Your task to perform on an android device: When is my next appointment? Image 0: 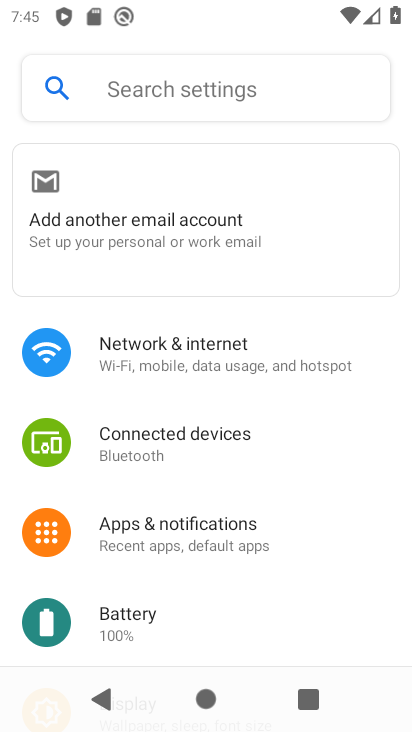
Step 0: press home button
Your task to perform on an android device: When is my next appointment? Image 1: 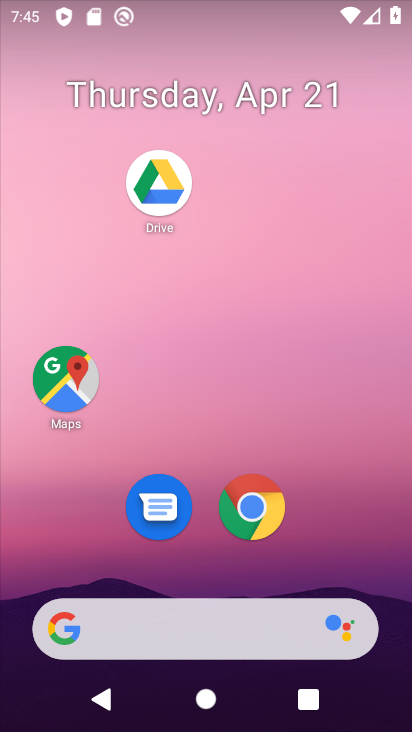
Step 1: drag from (356, 535) to (352, 110)
Your task to perform on an android device: When is my next appointment? Image 2: 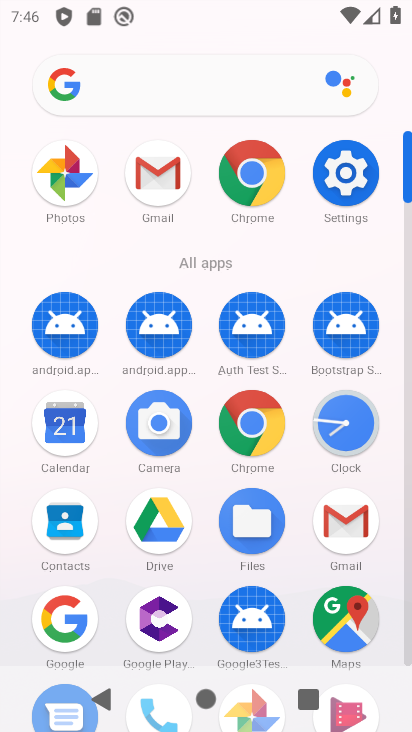
Step 2: click (53, 439)
Your task to perform on an android device: When is my next appointment? Image 3: 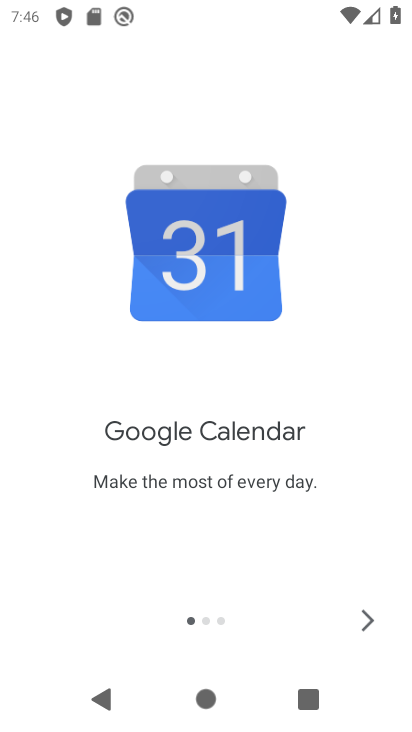
Step 3: click (369, 629)
Your task to perform on an android device: When is my next appointment? Image 4: 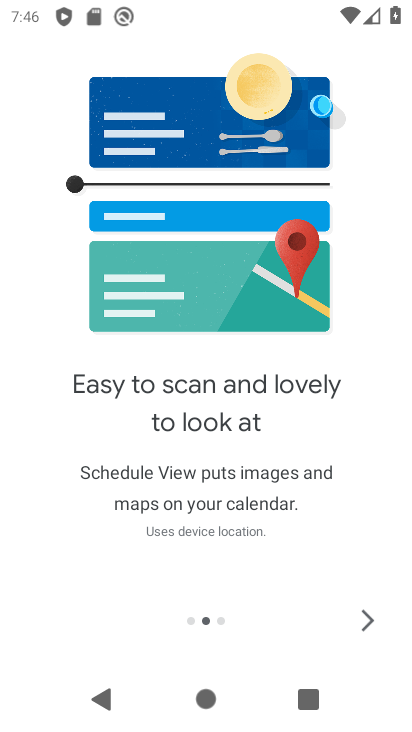
Step 4: click (370, 628)
Your task to perform on an android device: When is my next appointment? Image 5: 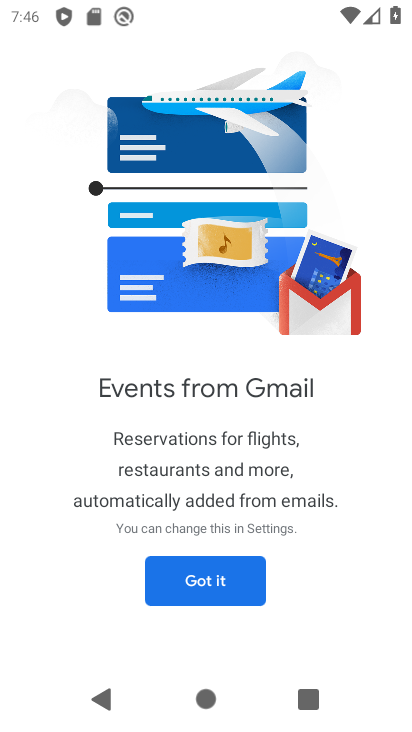
Step 5: click (241, 605)
Your task to perform on an android device: When is my next appointment? Image 6: 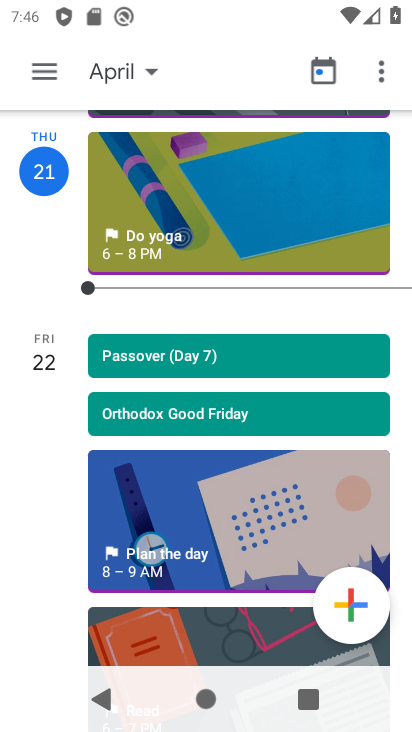
Step 6: drag from (240, 479) to (268, 216)
Your task to perform on an android device: When is my next appointment? Image 7: 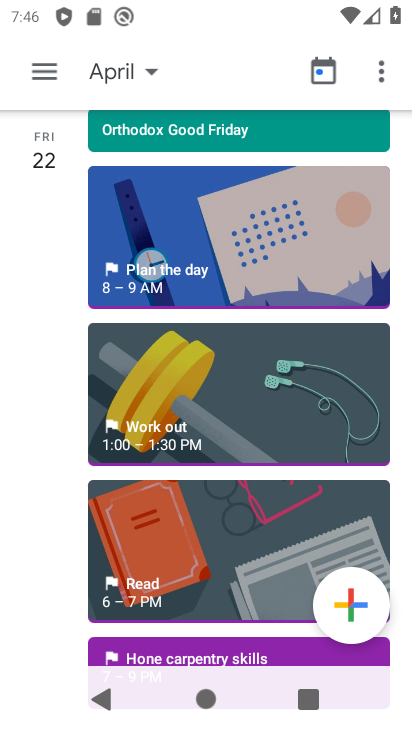
Step 7: drag from (271, 517) to (288, 189)
Your task to perform on an android device: When is my next appointment? Image 8: 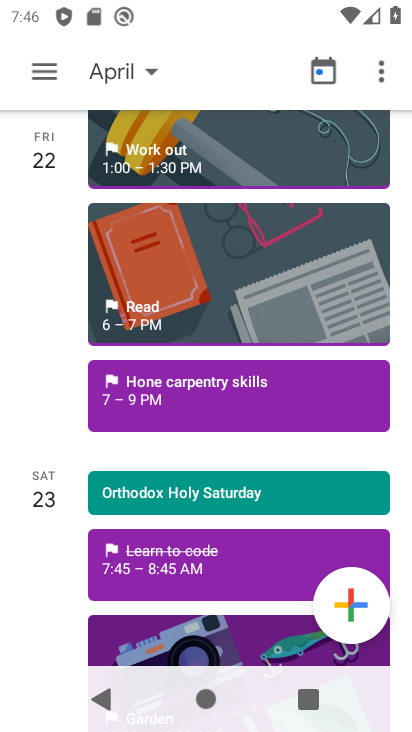
Step 8: drag from (256, 573) to (275, 280)
Your task to perform on an android device: When is my next appointment? Image 9: 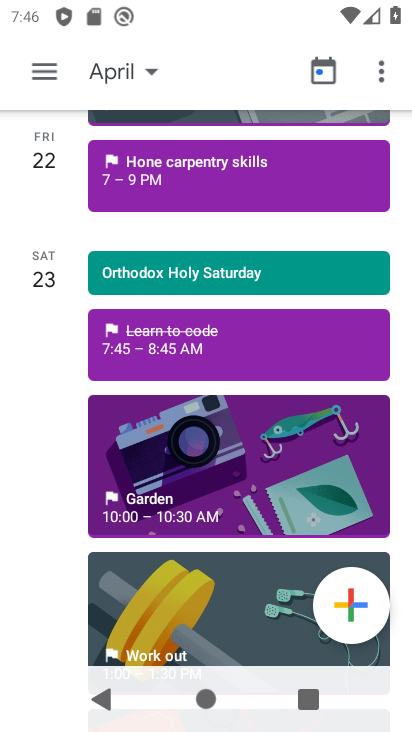
Step 9: drag from (245, 490) to (267, 205)
Your task to perform on an android device: When is my next appointment? Image 10: 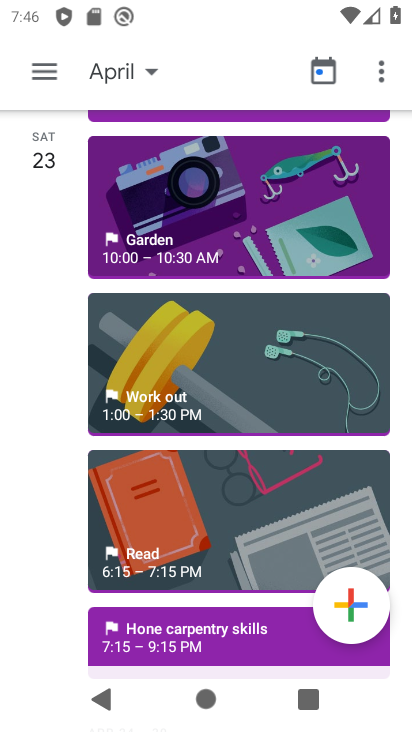
Step 10: drag from (259, 243) to (260, 535)
Your task to perform on an android device: When is my next appointment? Image 11: 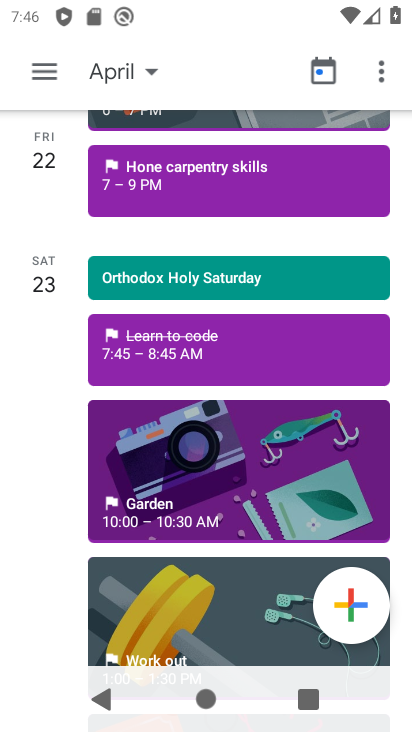
Step 11: drag from (259, 220) to (252, 474)
Your task to perform on an android device: When is my next appointment? Image 12: 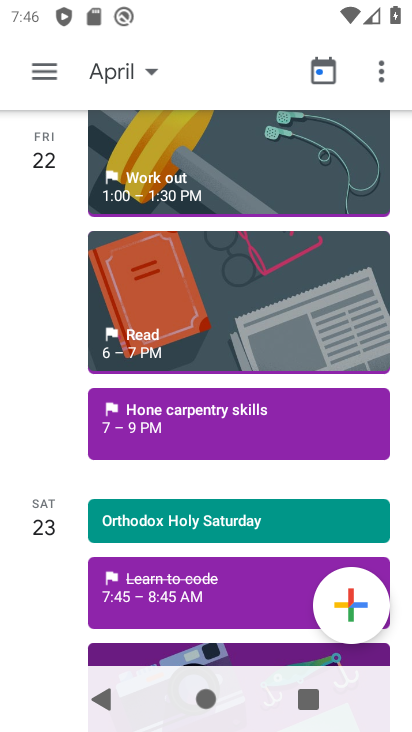
Step 12: click (250, 325)
Your task to perform on an android device: When is my next appointment? Image 13: 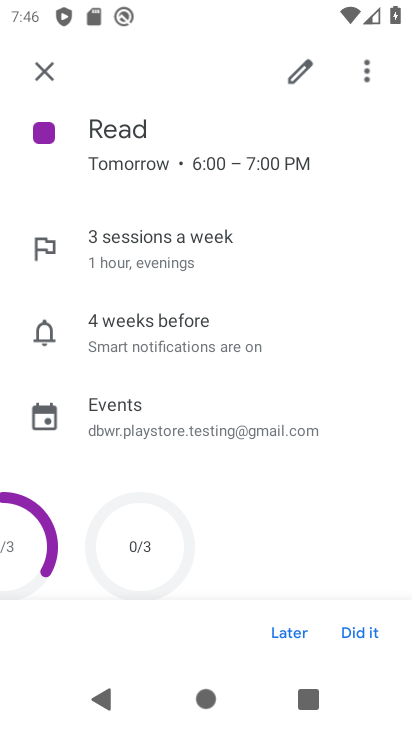
Step 13: task complete